Your task to perform on an android device: turn on data saver in the chrome app Image 0: 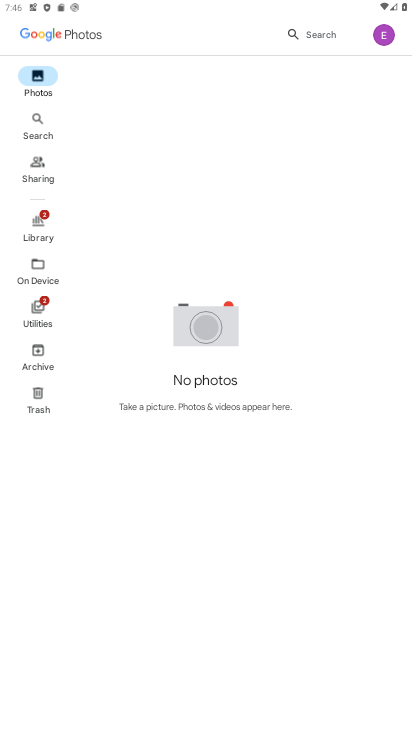
Step 0: press home button
Your task to perform on an android device: turn on data saver in the chrome app Image 1: 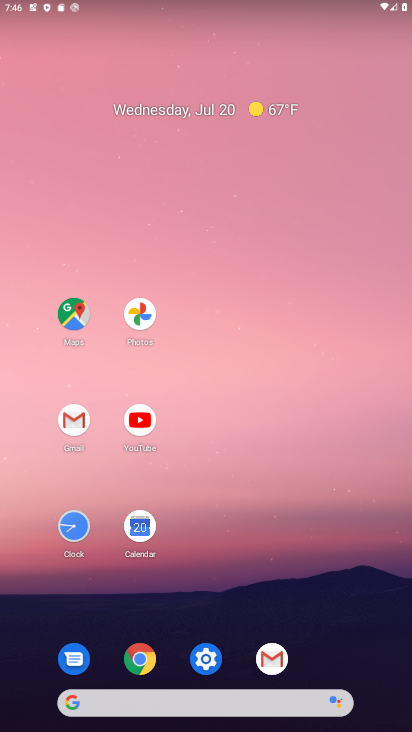
Step 1: click (141, 659)
Your task to perform on an android device: turn on data saver in the chrome app Image 2: 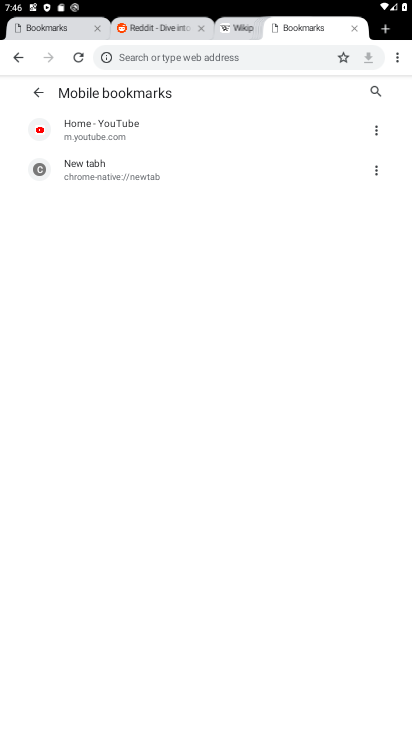
Step 2: click (398, 60)
Your task to perform on an android device: turn on data saver in the chrome app Image 3: 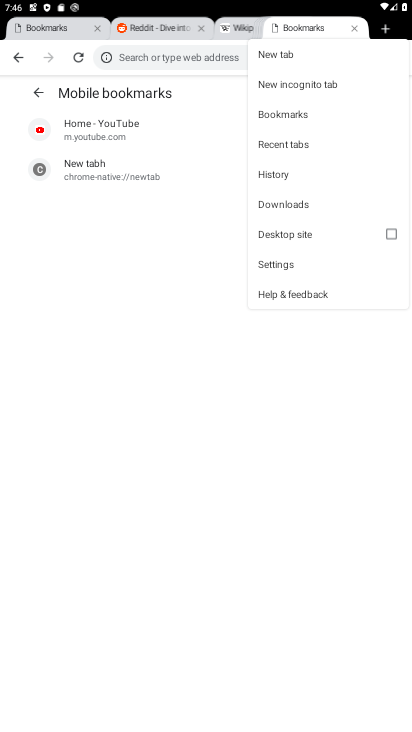
Step 3: click (281, 269)
Your task to perform on an android device: turn on data saver in the chrome app Image 4: 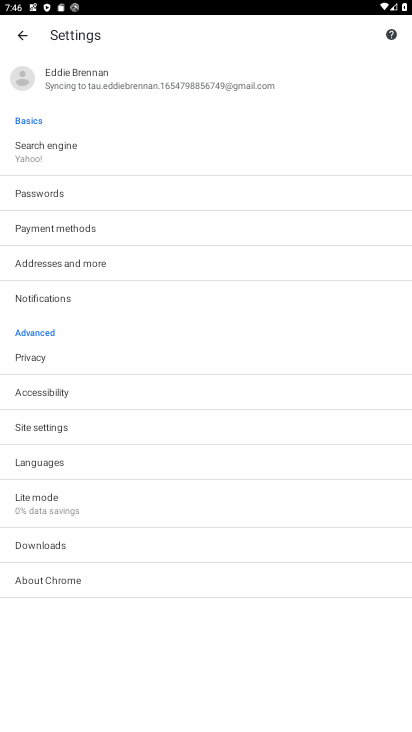
Step 4: click (43, 494)
Your task to perform on an android device: turn on data saver in the chrome app Image 5: 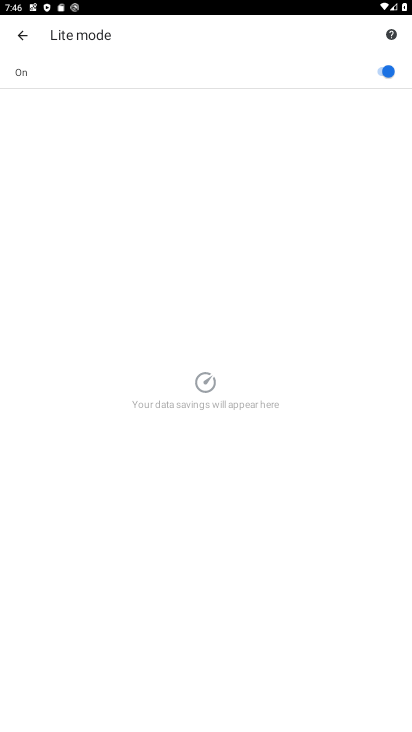
Step 5: task complete